Your task to perform on an android device: Do I have any events tomorrow? Image 0: 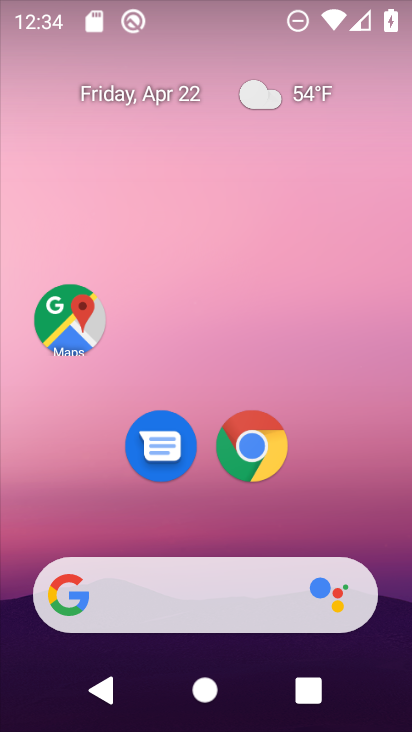
Step 0: drag from (382, 518) to (336, 250)
Your task to perform on an android device: Do I have any events tomorrow? Image 1: 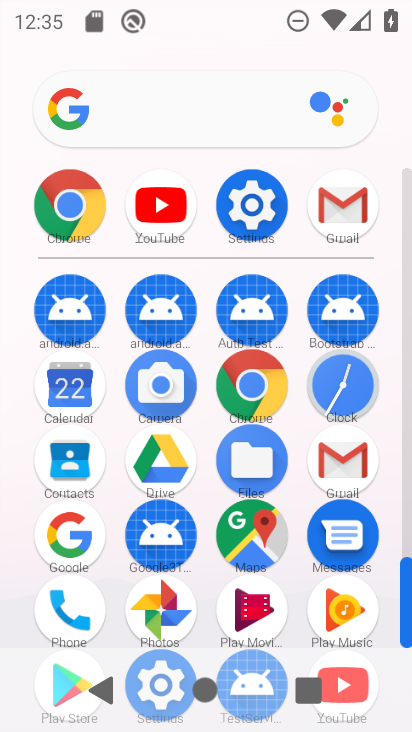
Step 1: click (73, 391)
Your task to perform on an android device: Do I have any events tomorrow? Image 2: 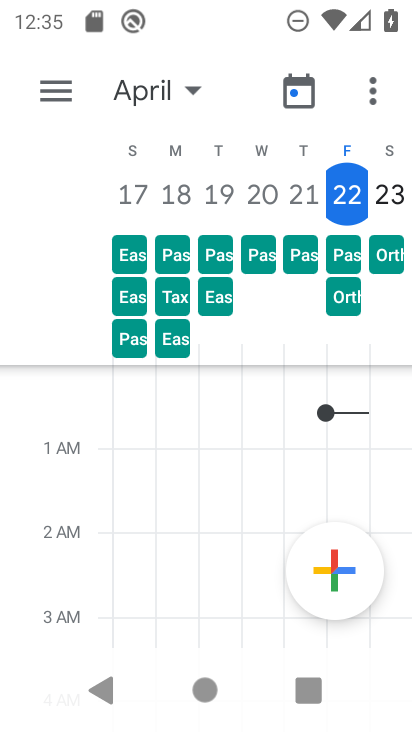
Step 2: click (43, 77)
Your task to perform on an android device: Do I have any events tomorrow? Image 3: 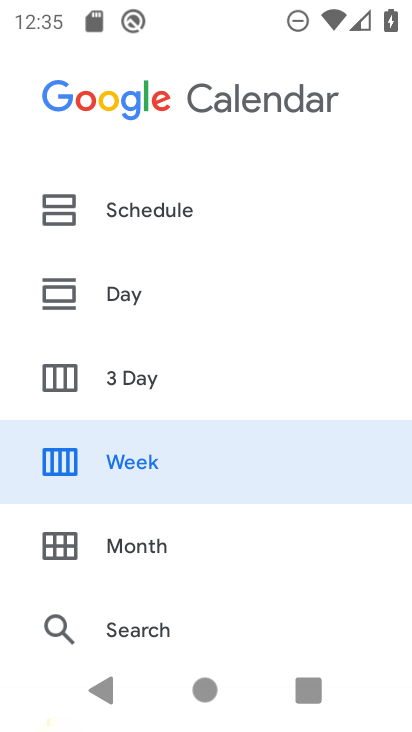
Step 3: drag from (207, 534) to (233, 186)
Your task to perform on an android device: Do I have any events tomorrow? Image 4: 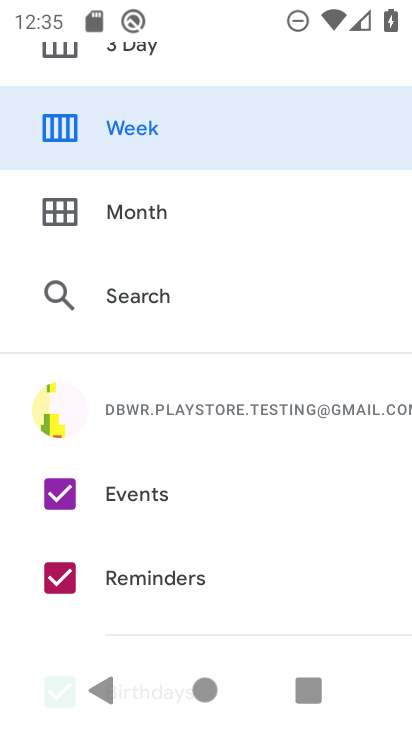
Step 4: drag from (279, 511) to (252, 76)
Your task to perform on an android device: Do I have any events tomorrow? Image 5: 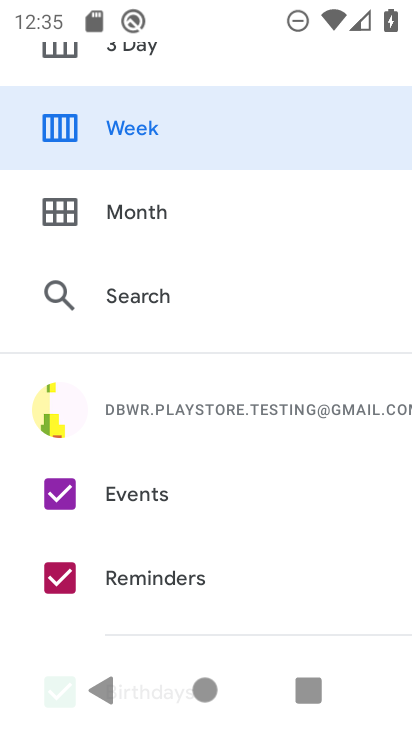
Step 5: drag from (238, 473) to (186, 150)
Your task to perform on an android device: Do I have any events tomorrow? Image 6: 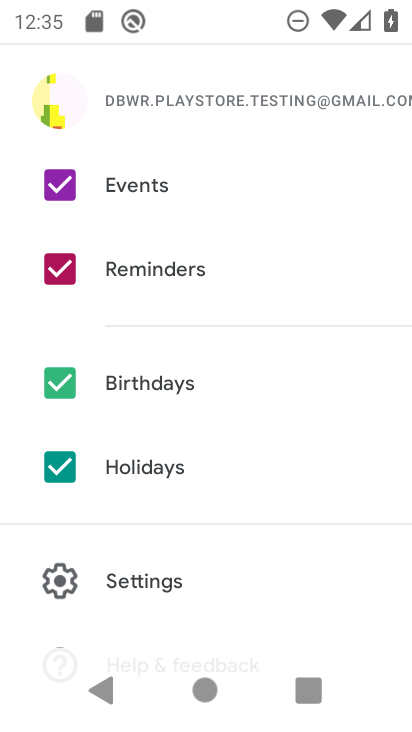
Step 6: click (58, 464)
Your task to perform on an android device: Do I have any events tomorrow? Image 7: 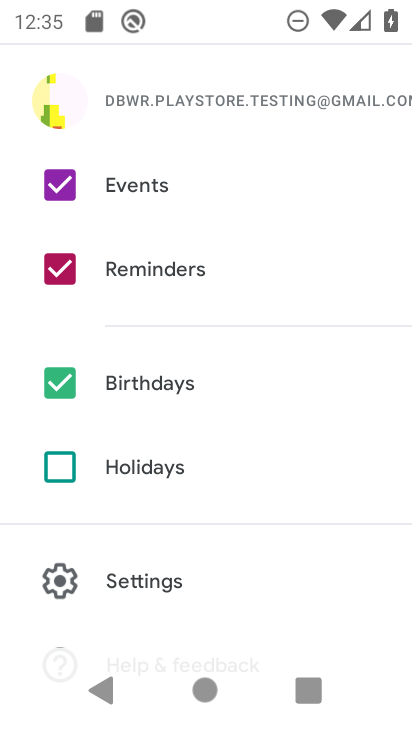
Step 7: click (55, 376)
Your task to perform on an android device: Do I have any events tomorrow? Image 8: 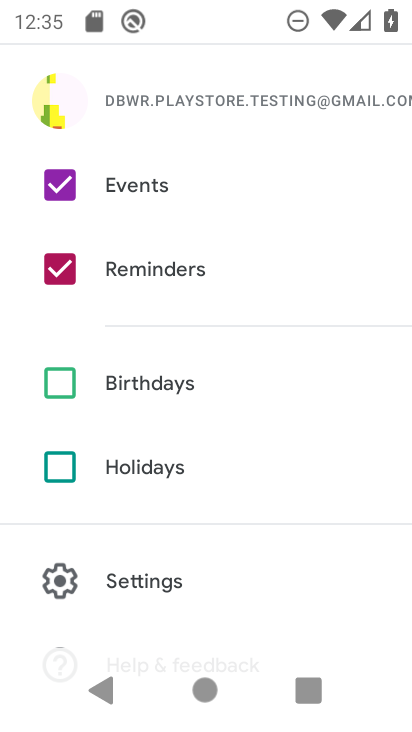
Step 8: click (59, 277)
Your task to perform on an android device: Do I have any events tomorrow? Image 9: 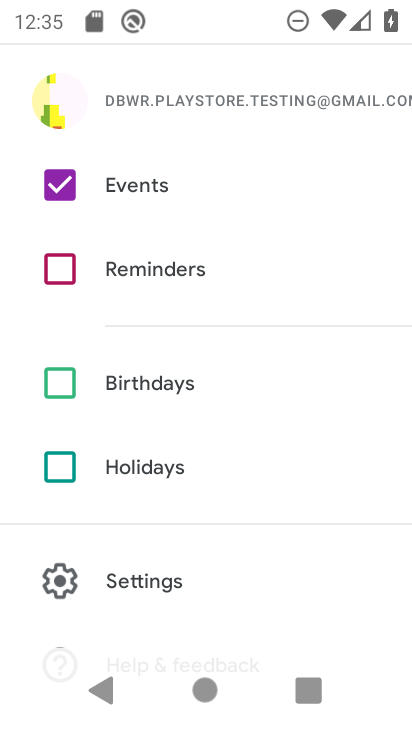
Step 9: drag from (199, 118) to (250, 530)
Your task to perform on an android device: Do I have any events tomorrow? Image 10: 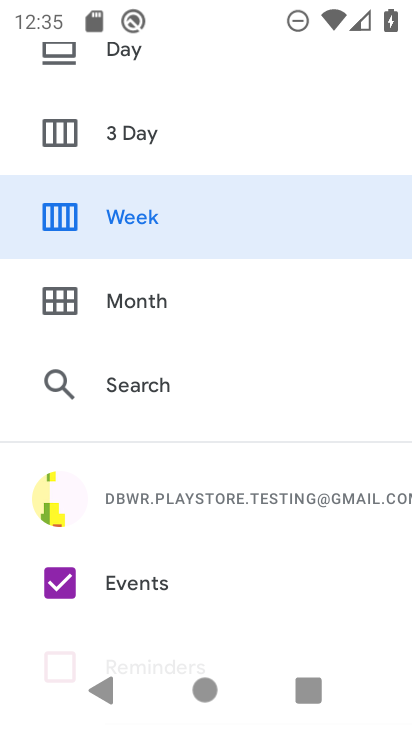
Step 10: click (200, 229)
Your task to perform on an android device: Do I have any events tomorrow? Image 11: 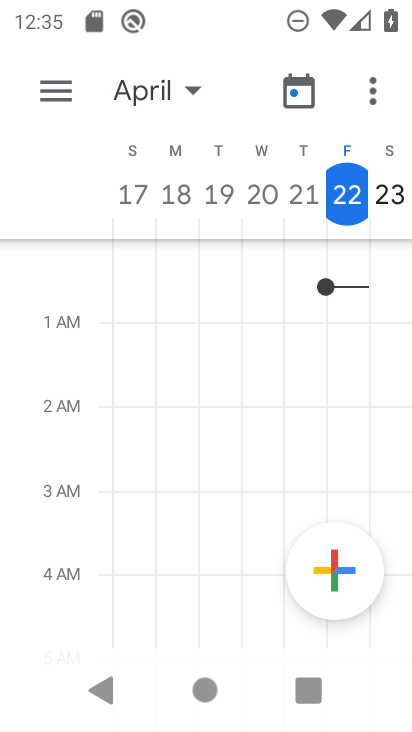
Step 11: click (69, 99)
Your task to perform on an android device: Do I have any events tomorrow? Image 12: 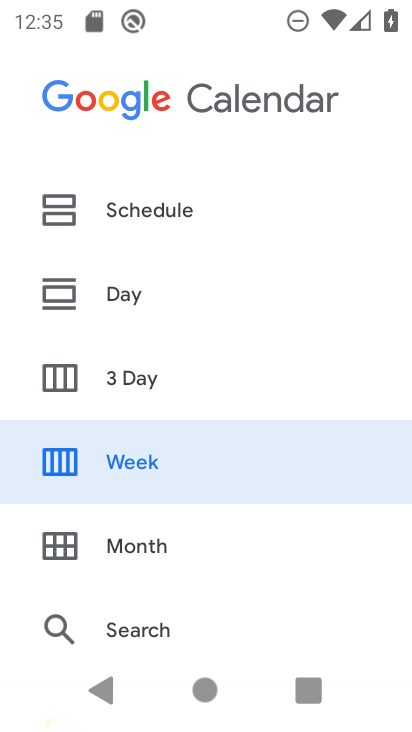
Step 12: click (148, 300)
Your task to perform on an android device: Do I have any events tomorrow? Image 13: 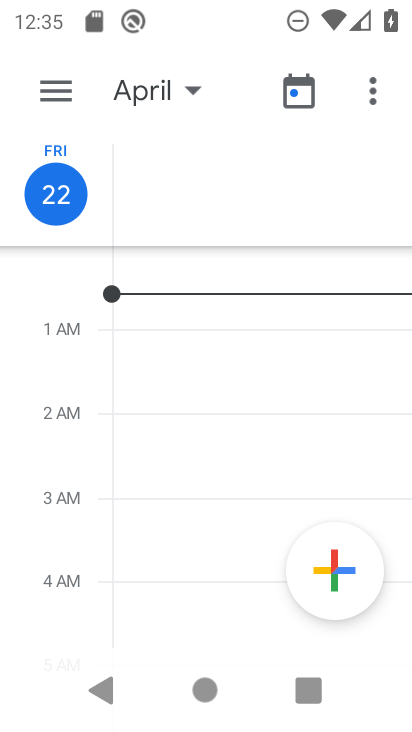
Step 13: click (192, 93)
Your task to perform on an android device: Do I have any events tomorrow? Image 14: 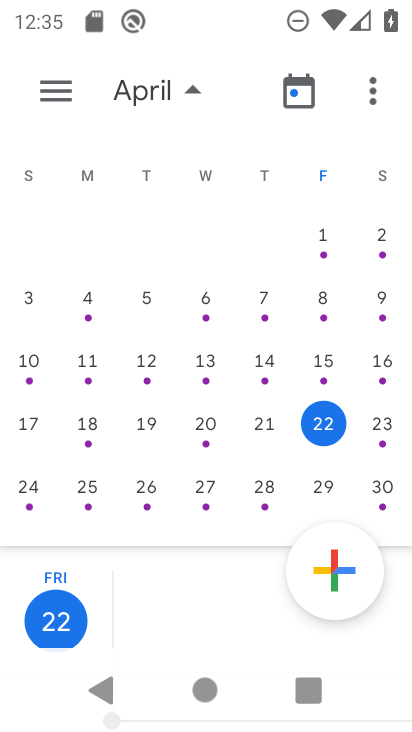
Step 14: click (381, 427)
Your task to perform on an android device: Do I have any events tomorrow? Image 15: 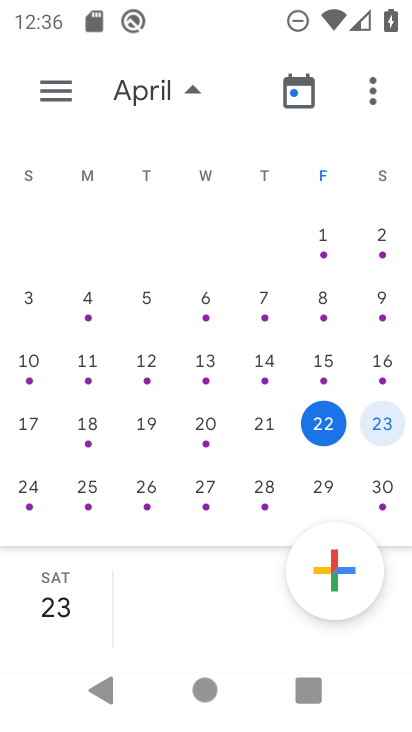
Step 15: click (200, 104)
Your task to perform on an android device: Do I have any events tomorrow? Image 16: 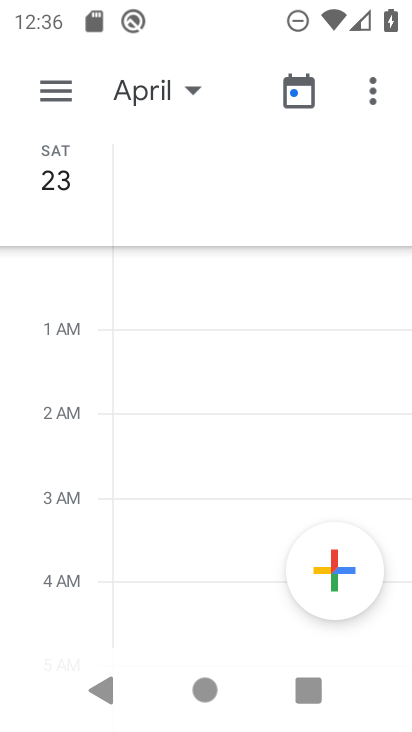
Step 16: task complete